Your task to perform on an android device: Search for vegetarian restaurants on Maps Image 0: 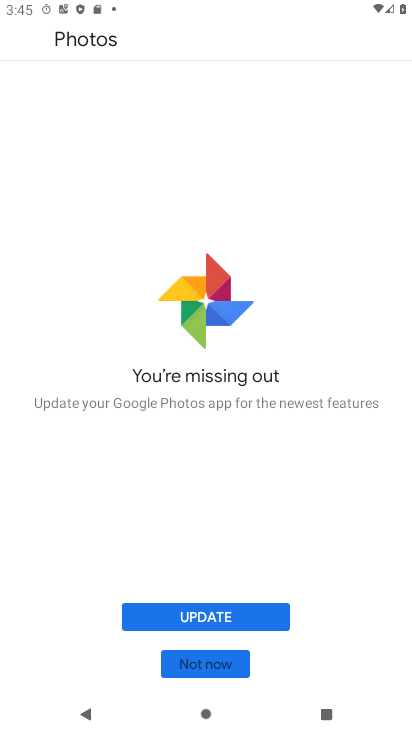
Step 0: press home button
Your task to perform on an android device: Search for vegetarian restaurants on Maps Image 1: 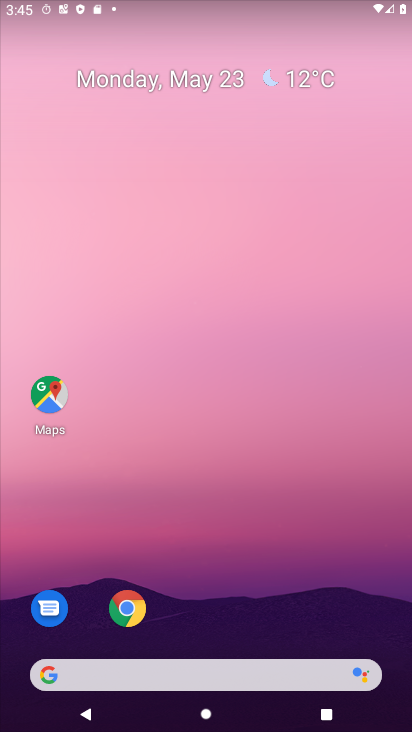
Step 1: click (39, 393)
Your task to perform on an android device: Search for vegetarian restaurants on Maps Image 2: 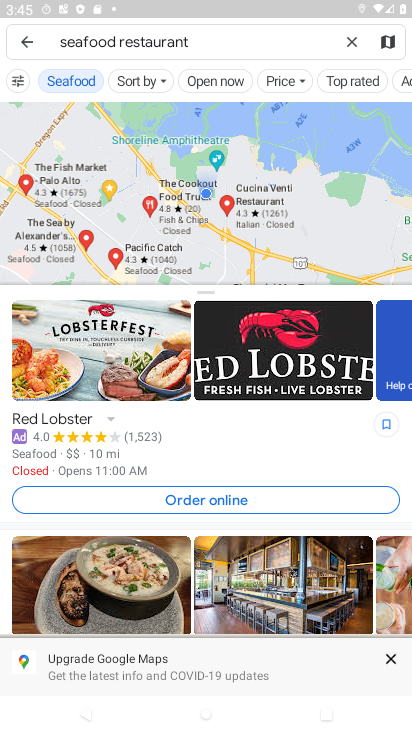
Step 2: click (355, 40)
Your task to perform on an android device: Search for vegetarian restaurants on Maps Image 3: 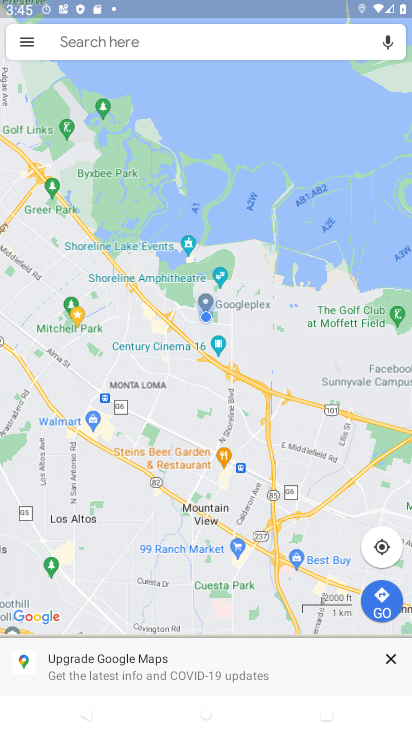
Step 3: click (182, 36)
Your task to perform on an android device: Search for vegetarian restaurants on Maps Image 4: 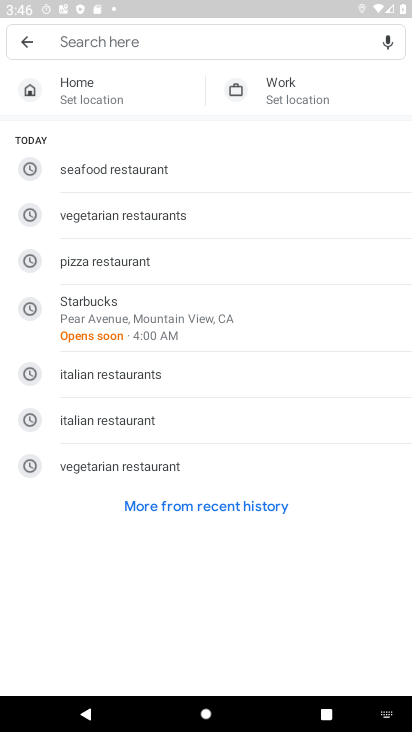
Step 4: click (154, 455)
Your task to perform on an android device: Search for vegetarian restaurants on Maps Image 5: 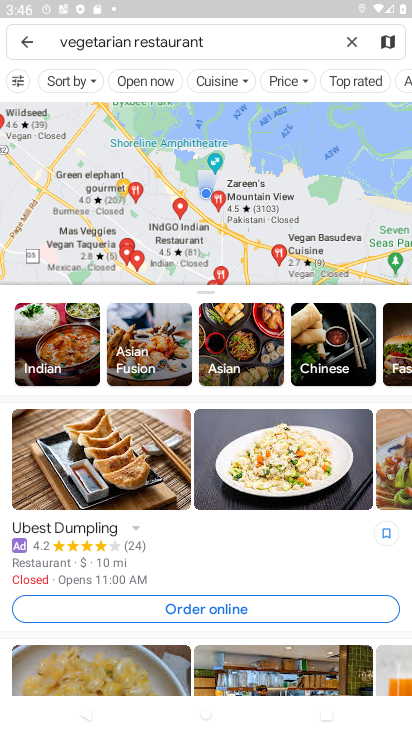
Step 5: task complete